Your task to perform on an android device: Turn on the flashlight Image 0: 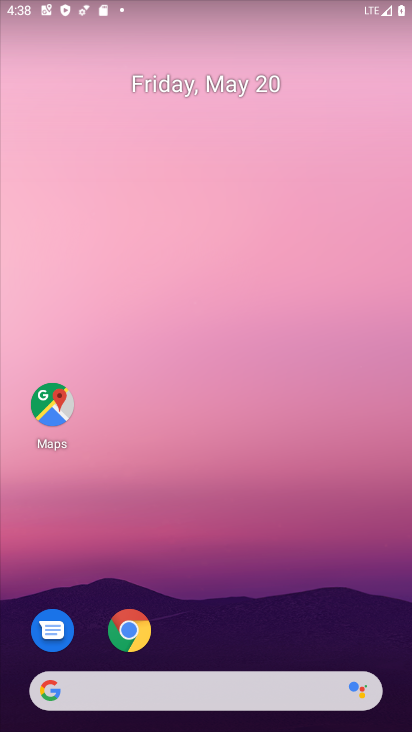
Step 0: drag from (191, 554) to (215, 40)
Your task to perform on an android device: Turn on the flashlight Image 1: 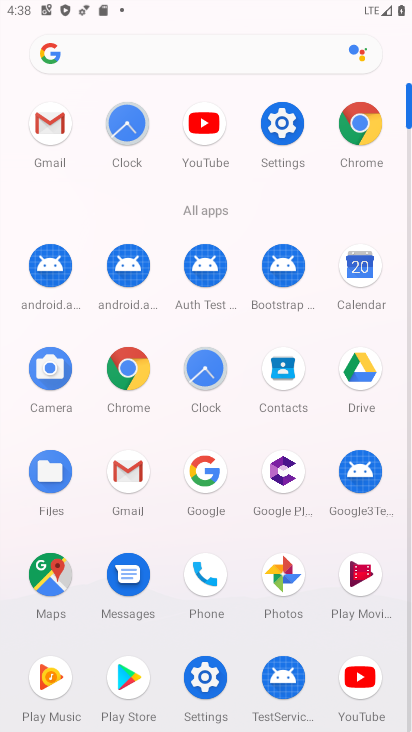
Step 1: click (272, 113)
Your task to perform on an android device: Turn on the flashlight Image 2: 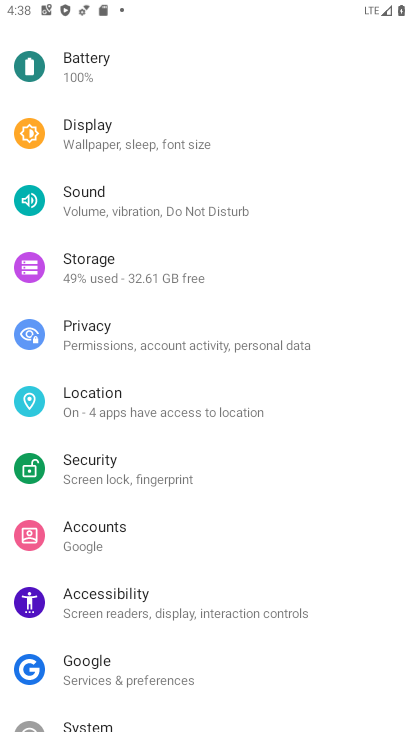
Step 2: drag from (216, 242) to (267, 665)
Your task to perform on an android device: Turn on the flashlight Image 3: 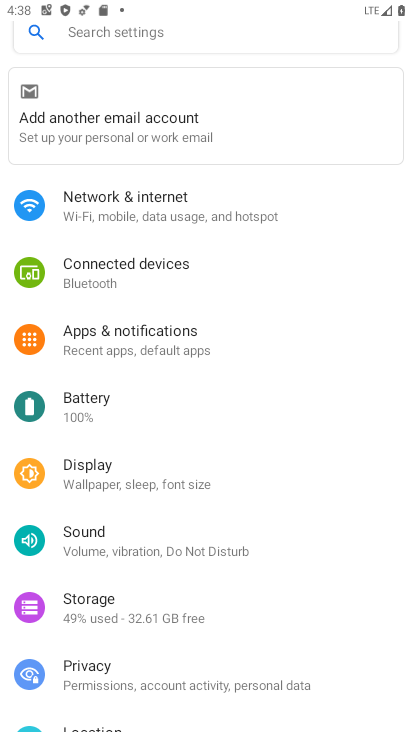
Step 3: click (246, 32)
Your task to perform on an android device: Turn on the flashlight Image 4: 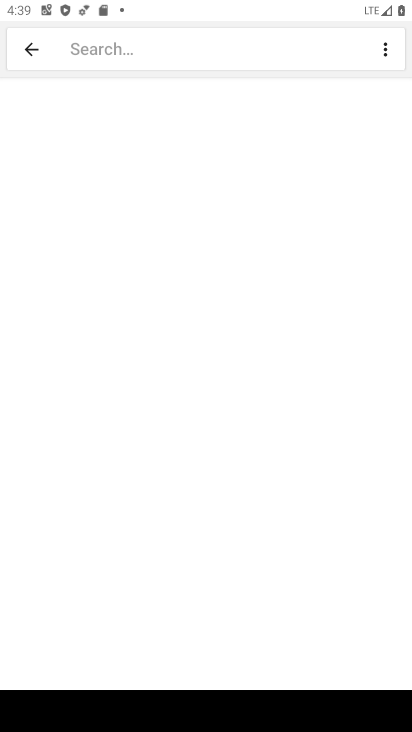
Step 4: type "Flashlight"
Your task to perform on an android device: Turn on the flashlight Image 5: 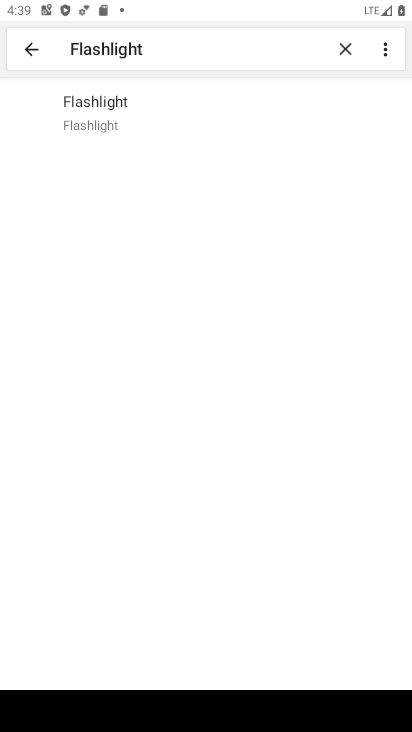
Step 5: click (89, 108)
Your task to perform on an android device: Turn on the flashlight Image 6: 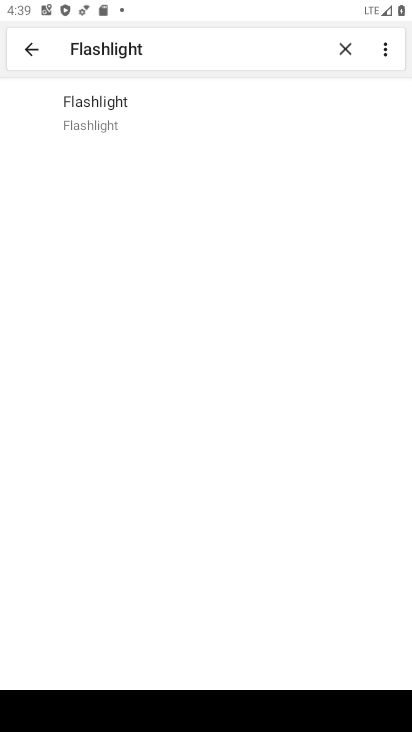
Step 6: task complete